Your task to perform on an android device: Go to display settings Image 0: 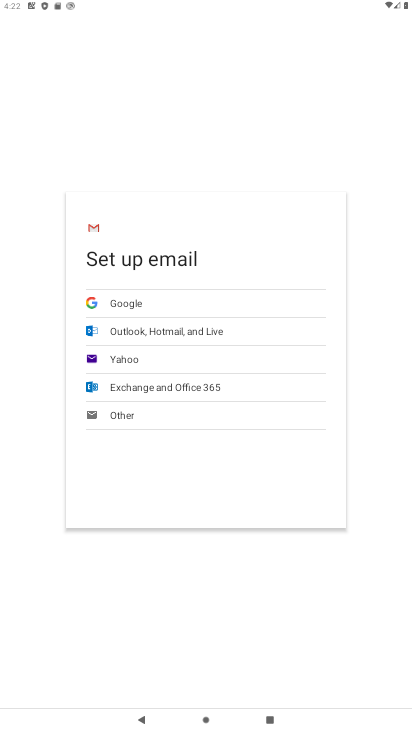
Step 0: press home button
Your task to perform on an android device: Go to display settings Image 1: 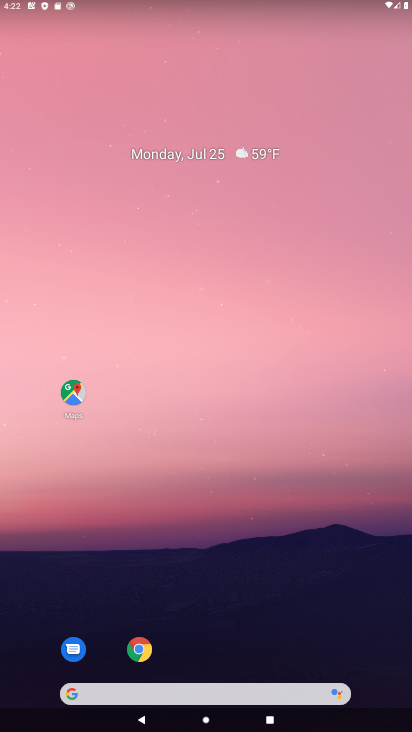
Step 1: drag from (398, 502) to (411, 256)
Your task to perform on an android device: Go to display settings Image 2: 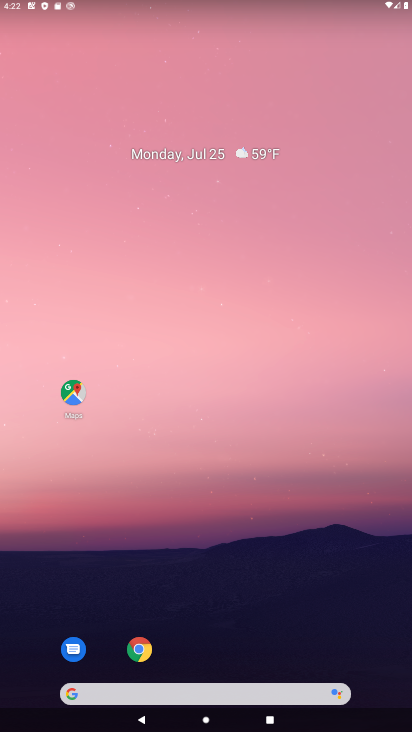
Step 2: drag from (286, 459) to (258, 100)
Your task to perform on an android device: Go to display settings Image 3: 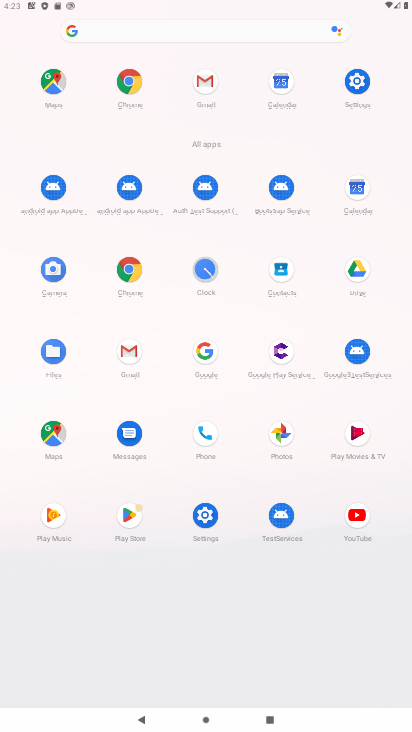
Step 3: click (349, 93)
Your task to perform on an android device: Go to display settings Image 4: 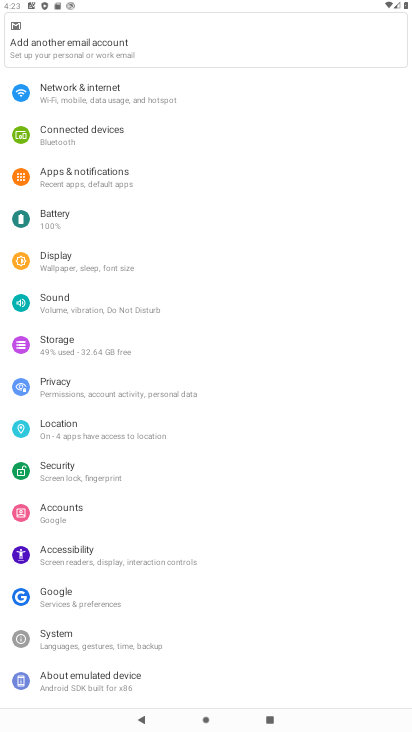
Step 4: click (37, 273)
Your task to perform on an android device: Go to display settings Image 5: 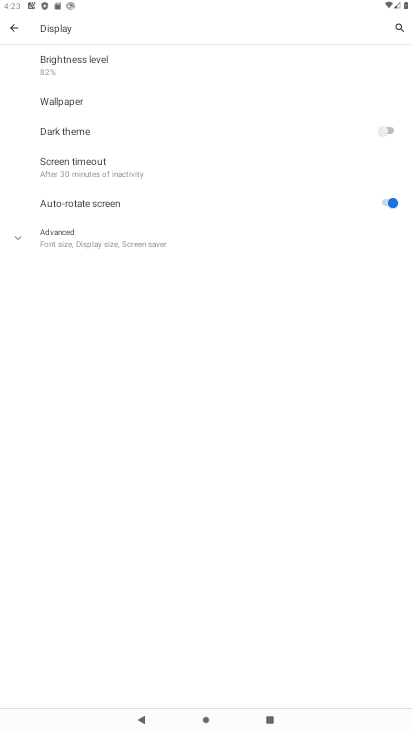
Step 5: task complete